Your task to perform on an android device: open the mobile data screen to see how much data has been used Image 0: 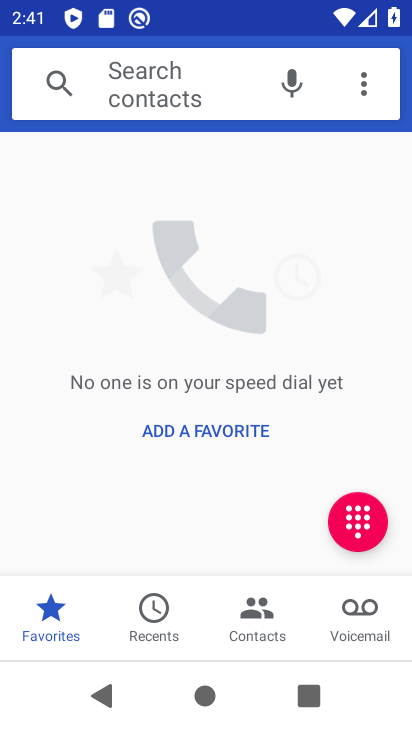
Step 0: press home button
Your task to perform on an android device: open the mobile data screen to see how much data has been used Image 1: 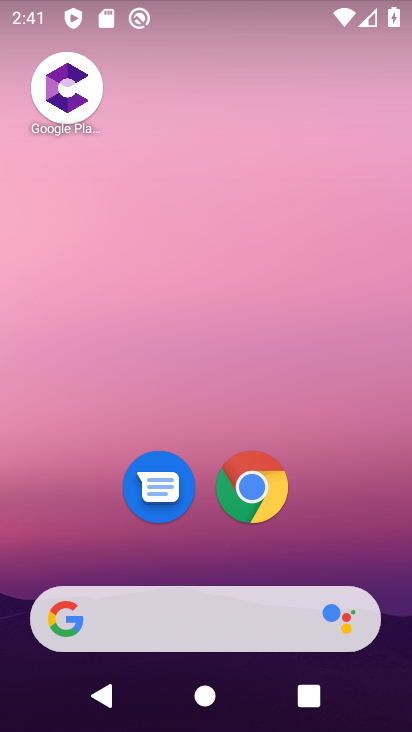
Step 1: drag from (335, 514) to (325, 47)
Your task to perform on an android device: open the mobile data screen to see how much data has been used Image 2: 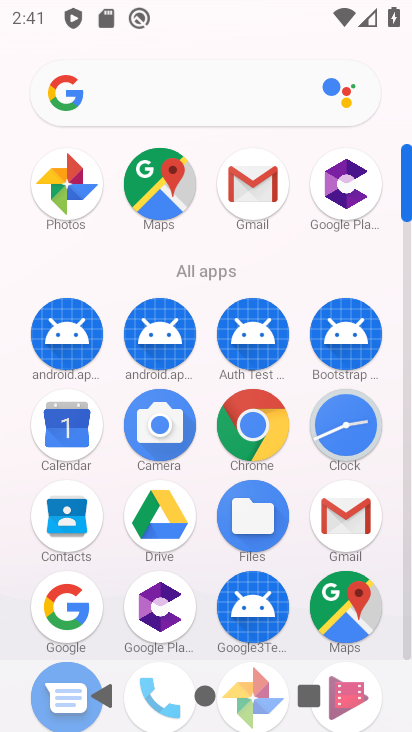
Step 2: drag from (295, 559) to (319, 209)
Your task to perform on an android device: open the mobile data screen to see how much data has been used Image 3: 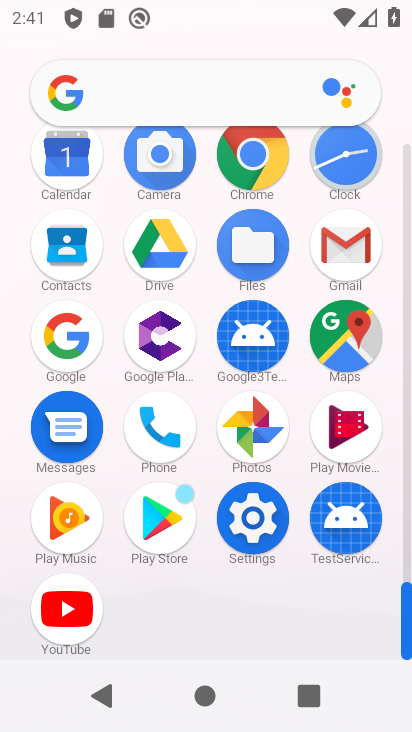
Step 3: click (263, 512)
Your task to perform on an android device: open the mobile data screen to see how much data has been used Image 4: 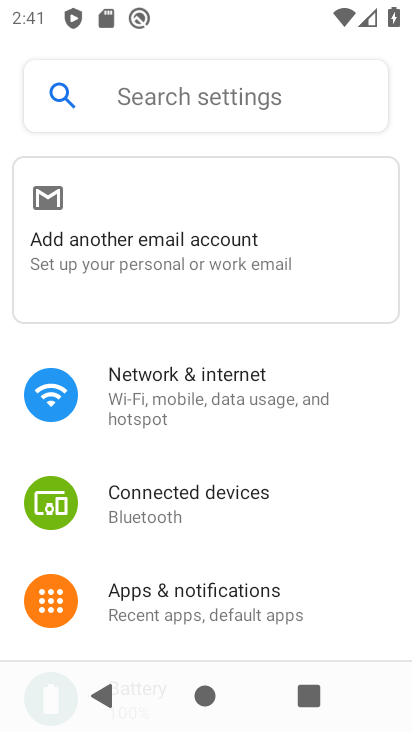
Step 4: click (264, 378)
Your task to perform on an android device: open the mobile data screen to see how much data has been used Image 5: 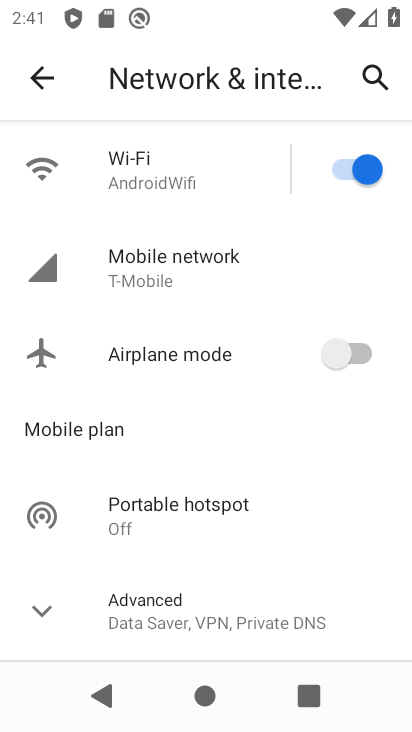
Step 5: click (257, 264)
Your task to perform on an android device: open the mobile data screen to see how much data has been used Image 6: 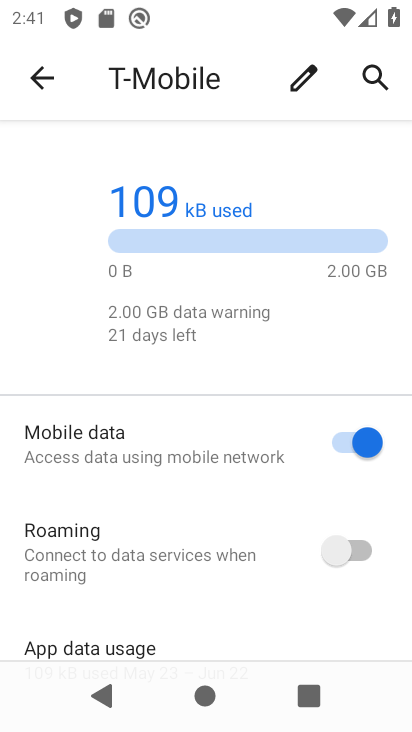
Step 6: task complete